Your task to perform on an android device: clear all cookies in the chrome app Image 0: 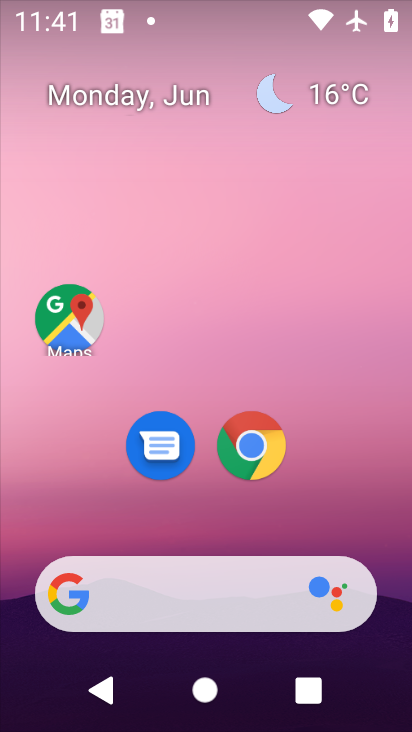
Step 0: click (253, 451)
Your task to perform on an android device: clear all cookies in the chrome app Image 1: 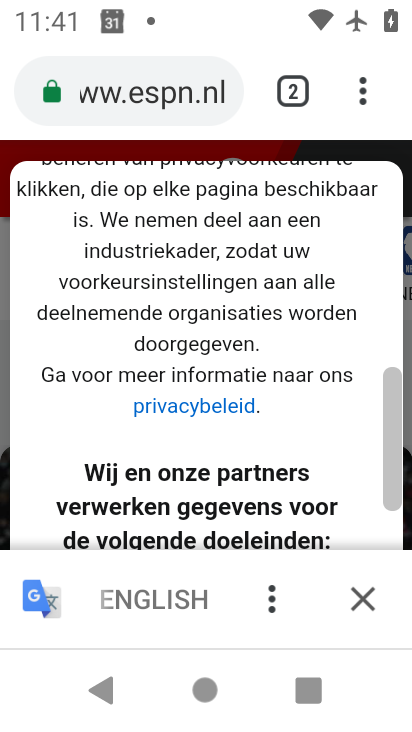
Step 1: drag from (358, 93) to (225, 474)
Your task to perform on an android device: clear all cookies in the chrome app Image 2: 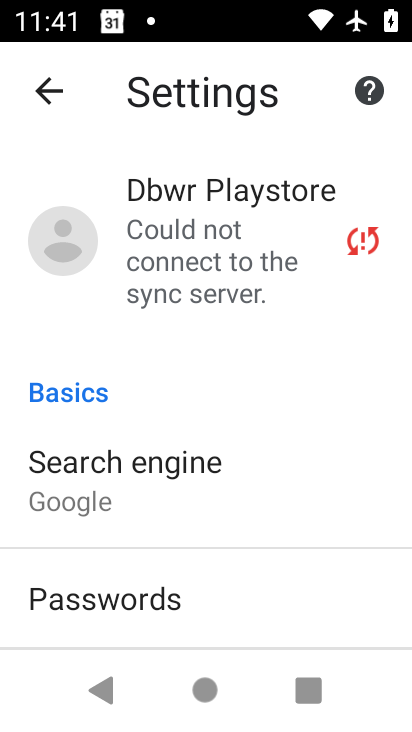
Step 2: drag from (315, 403) to (272, 93)
Your task to perform on an android device: clear all cookies in the chrome app Image 3: 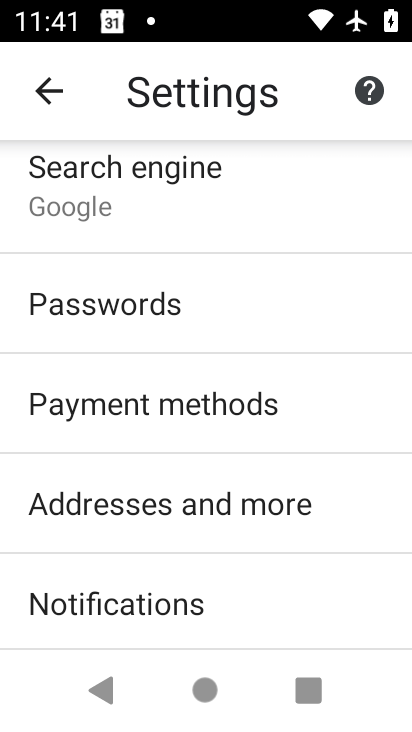
Step 3: drag from (322, 565) to (315, 215)
Your task to perform on an android device: clear all cookies in the chrome app Image 4: 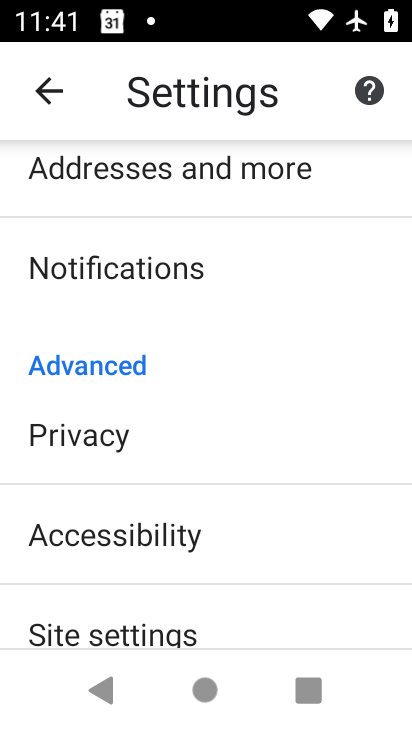
Step 4: click (229, 435)
Your task to perform on an android device: clear all cookies in the chrome app Image 5: 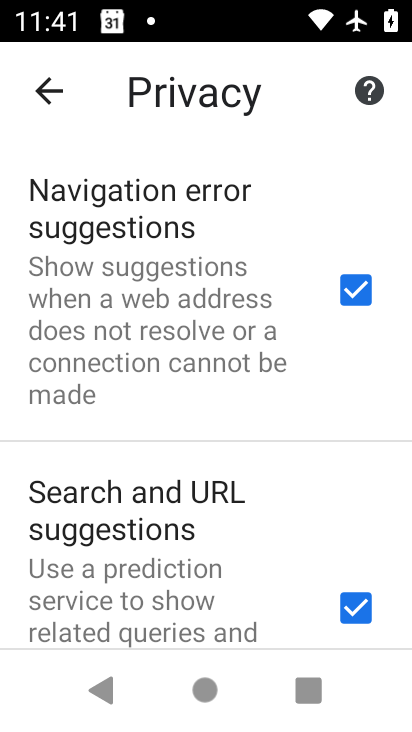
Step 5: drag from (194, 614) to (185, 79)
Your task to perform on an android device: clear all cookies in the chrome app Image 6: 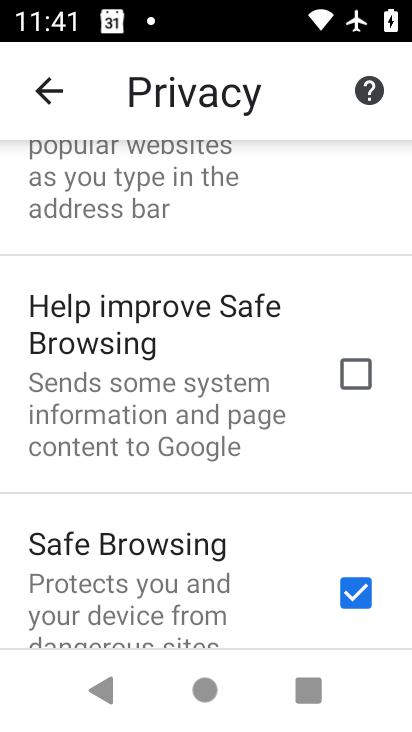
Step 6: drag from (180, 586) to (168, 125)
Your task to perform on an android device: clear all cookies in the chrome app Image 7: 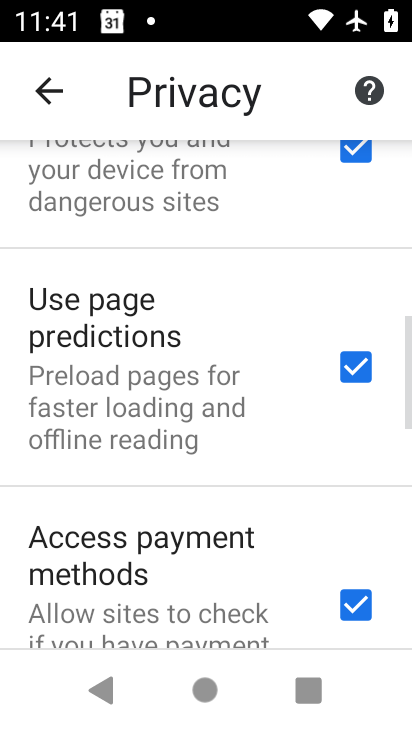
Step 7: drag from (217, 533) to (193, 164)
Your task to perform on an android device: clear all cookies in the chrome app Image 8: 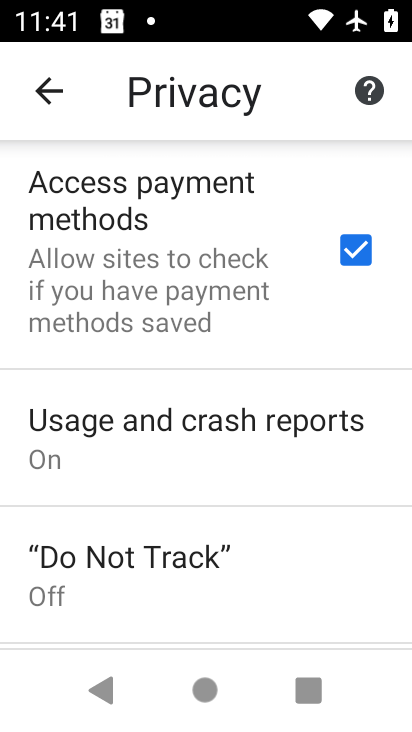
Step 8: drag from (233, 572) to (219, 206)
Your task to perform on an android device: clear all cookies in the chrome app Image 9: 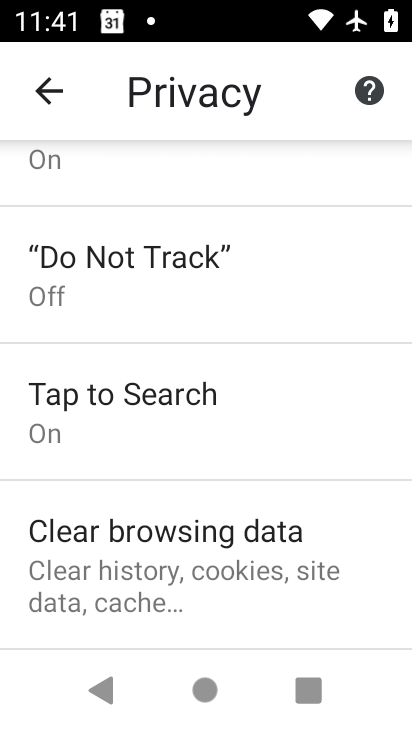
Step 9: click (229, 592)
Your task to perform on an android device: clear all cookies in the chrome app Image 10: 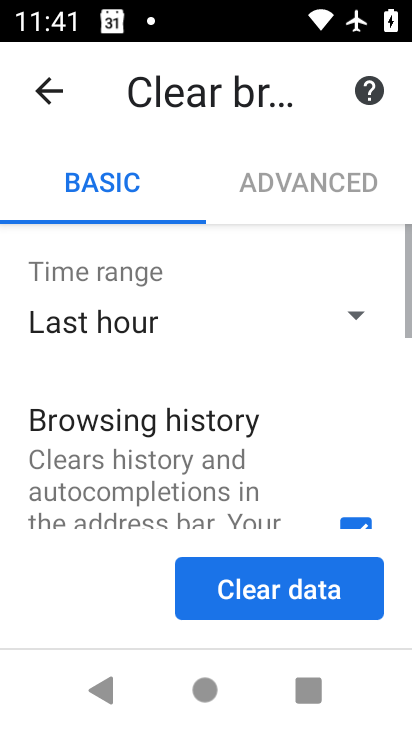
Step 10: drag from (129, 559) to (148, 289)
Your task to perform on an android device: clear all cookies in the chrome app Image 11: 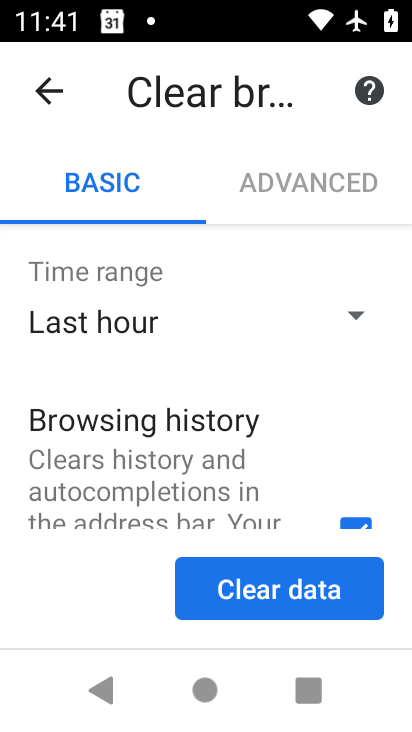
Step 11: drag from (228, 454) to (226, 154)
Your task to perform on an android device: clear all cookies in the chrome app Image 12: 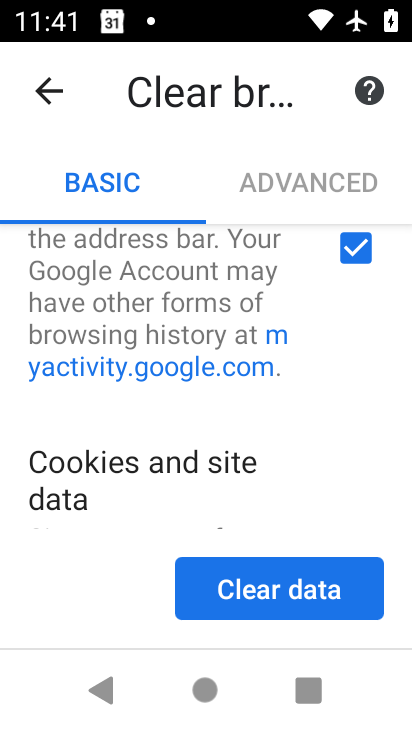
Step 12: click (349, 239)
Your task to perform on an android device: clear all cookies in the chrome app Image 13: 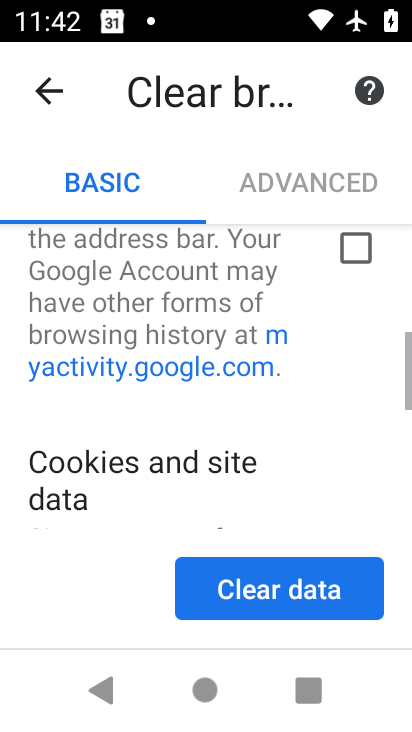
Step 13: drag from (79, 514) to (103, 231)
Your task to perform on an android device: clear all cookies in the chrome app Image 14: 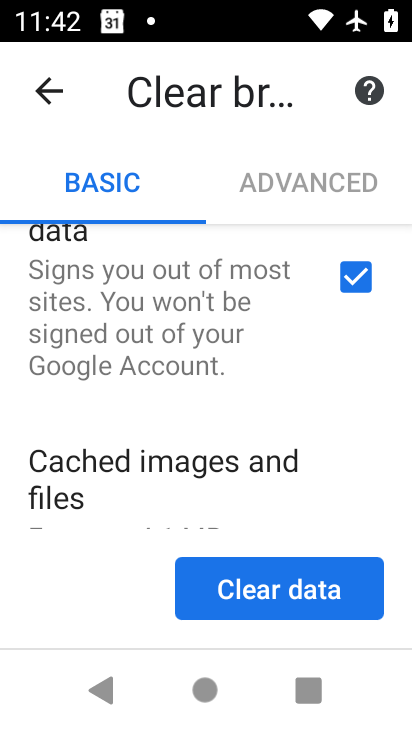
Step 14: drag from (138, 490) to (135, 307)
Your task to perform on an android device: clear all cookies in the chrome app Image 15: 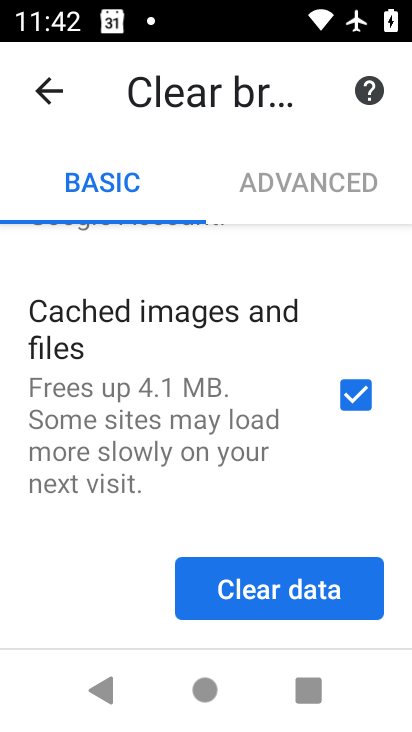
Step 15: click (340, 397)
Your task to perform on an android device: clear all cookies in the chrome app Image 16: 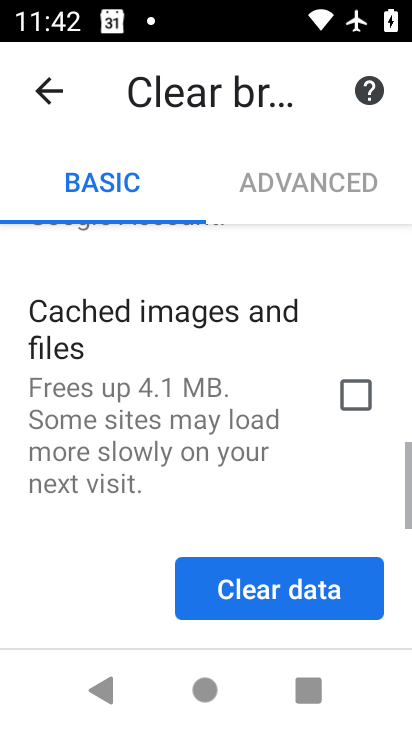
Step 16: drag from (134, 521) to (160, 176)
Your task to perform on an android device: clear all cookies in the chrome app Image 17: 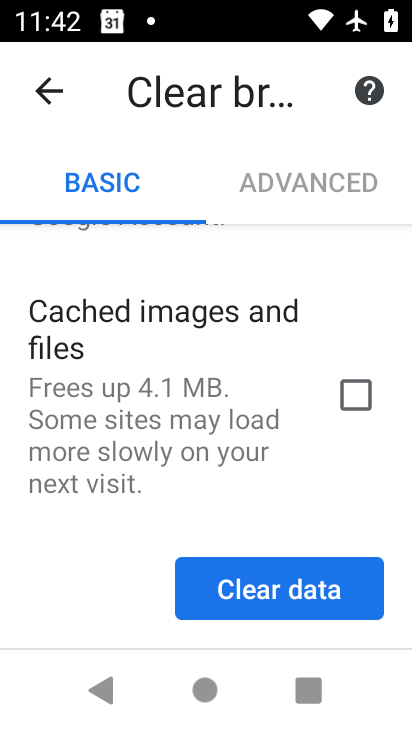
Step 17: click (267, 589)
Your task to perform on an android device: clear all cookies in the chrome app Image 18: 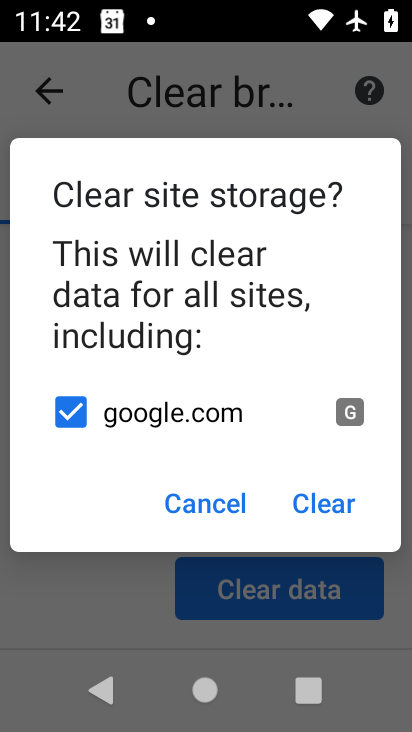
Step 18: click (324, 503)
Your task to perform on an android device: clear all cookies in the chrome app Image 19: 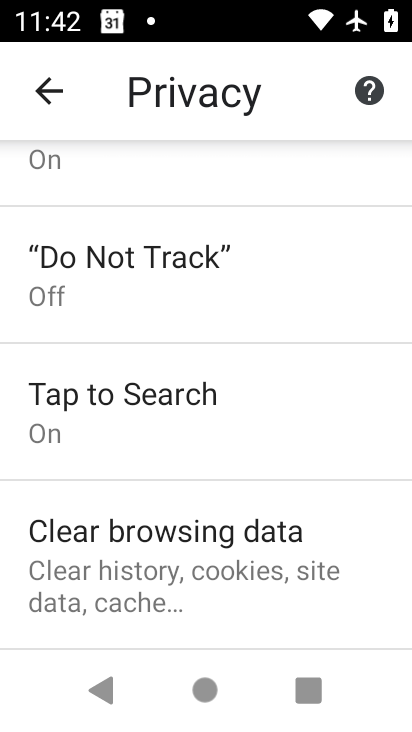
Step 19: press home button
Your task to perform on an android device: clear all cookies in the chrome app Image 20: 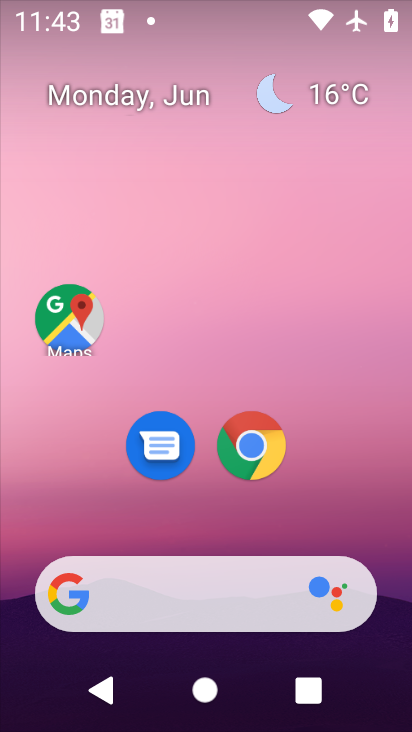
Step 20: click (249, 433)
Your task to perform on an android device: clear all cookies in the chrome app Image 21: 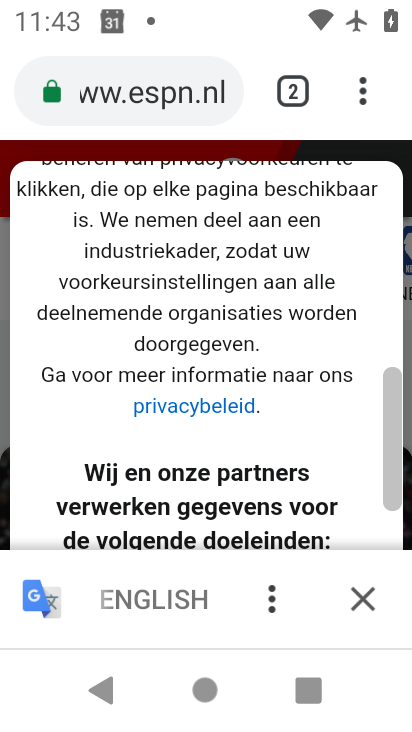
Step 21: drag from (365, 90) to (253, 460)
Your task to perform on an android device: clear all cookies in the chrome app Image 22: 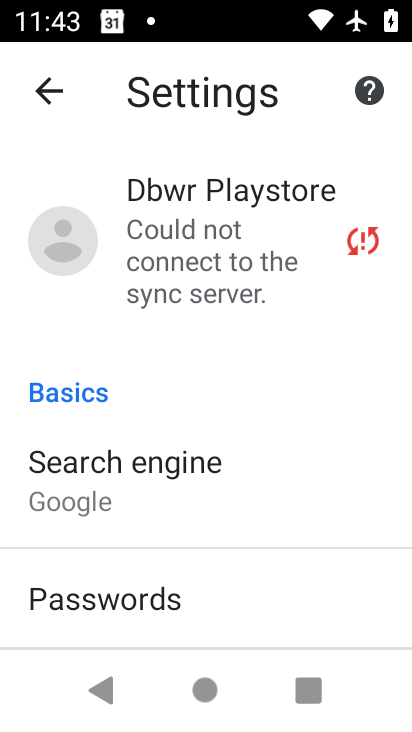
Step 22: drag from (296, 517) to (321, 6)
Your task to perform on an android device: clear all cookies in the chrome app Image 23: 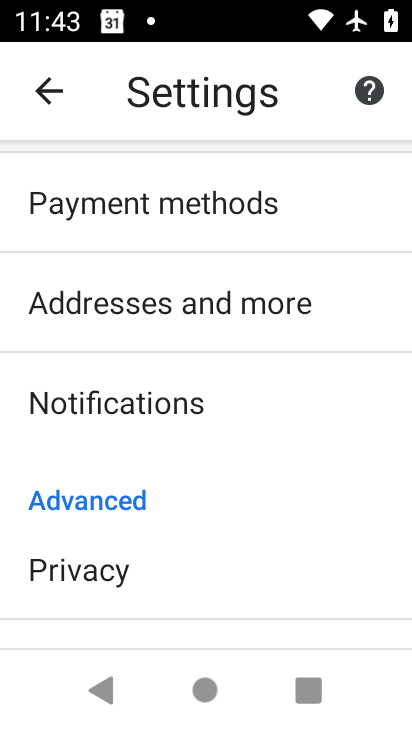
Step 23: click (232, 566)
Your task to perform on an android device: clear all cookies in the chrome app Image 24: 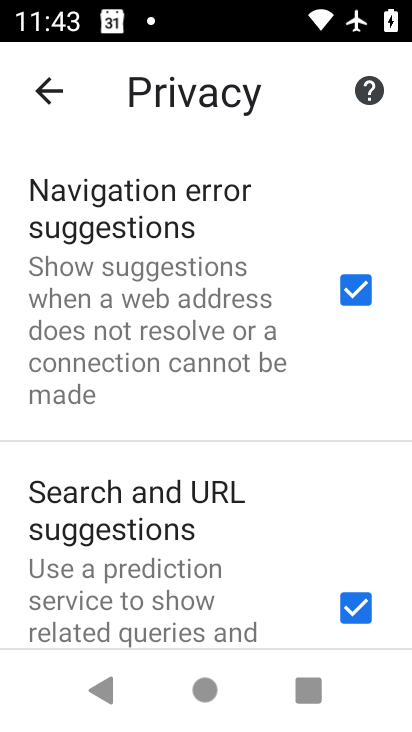
Step 24: drag from (156, 620) to (224, 43)
Your task to perform on an android device: clear all cookies in the chrome app Image 25: 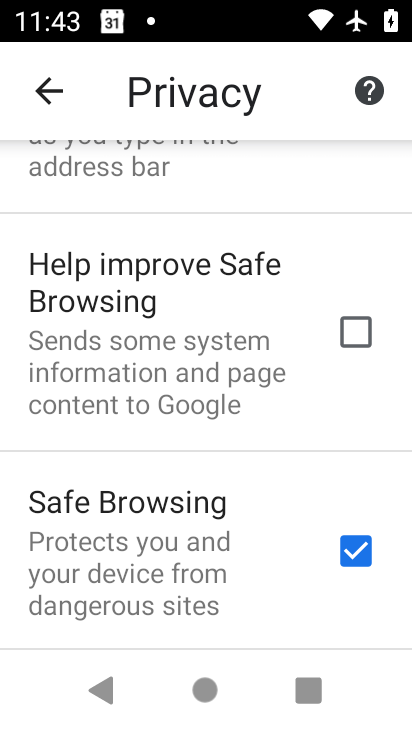
Step 25: drag from (150, 593) to (198, 2)
Your task to perform on an android device: clear all cookies in the chrome app Image 26: 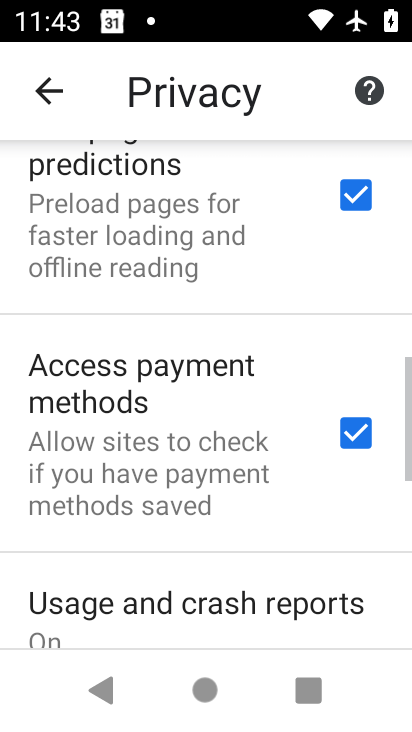
Step 26: drag from (178, 615) to (253, 11)
Your task to perform on an android device: clear all cookies in the chrome app Image 27: 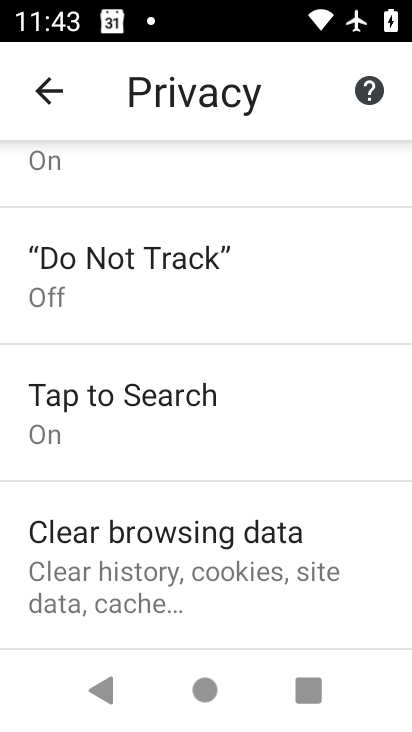
Step 27: click (122, 560)
Your task to perform on an android device: clear all cookies in the chrome app Image 28: 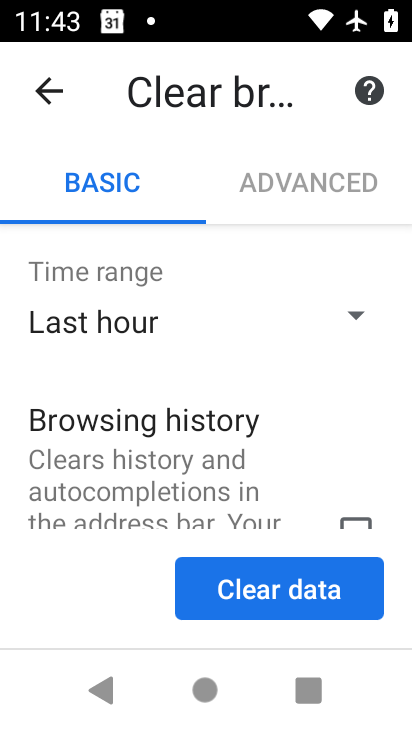
Step 28: drag from (112, 498) to (151, 81)
Your task to perform on an android device: clear all cookies in the chrome app Image 29: 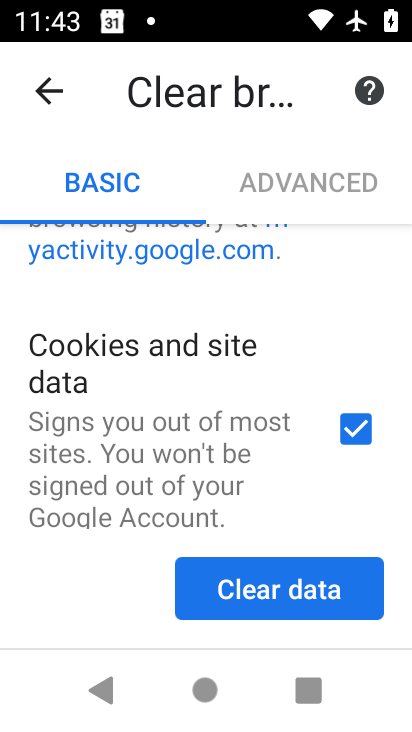
Step 29: drag from (109, 537) to (130, 8)
Your task to perform on an android device: clear all cookies in the chrome app Image 30: 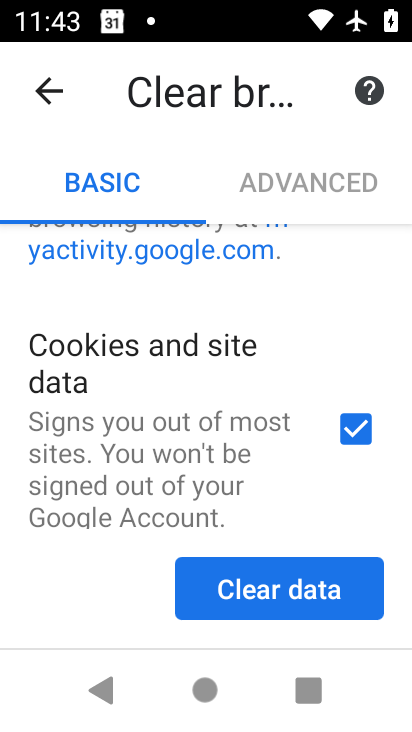
Step 30: drag from (162, 487) to (174, 128)
Your task to perform on an android device: clear all cookies in the chrome app Image 31: 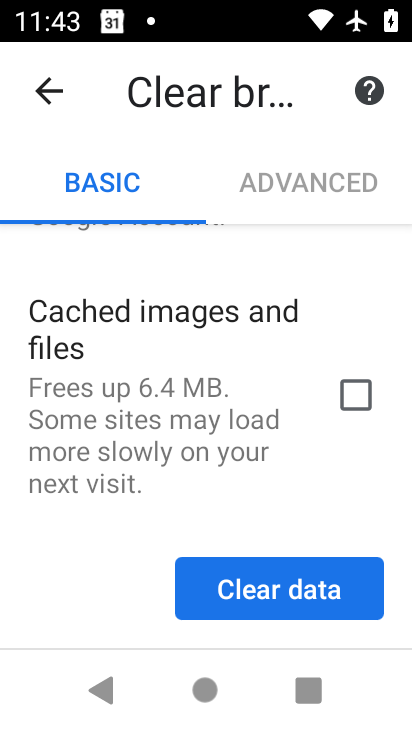
Step 31: drag from (138, 515) to (180, 19)
Your task to perform on an android device: clear all cookies in the chrome app Image 32: 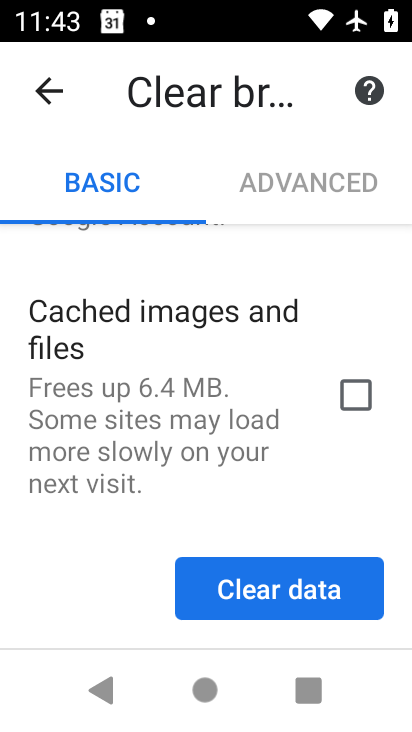
Step 32: drag from (88, 536) to (151, 103)
Your task to perform on an android device: clear all cookies in the chrome app Image 33: 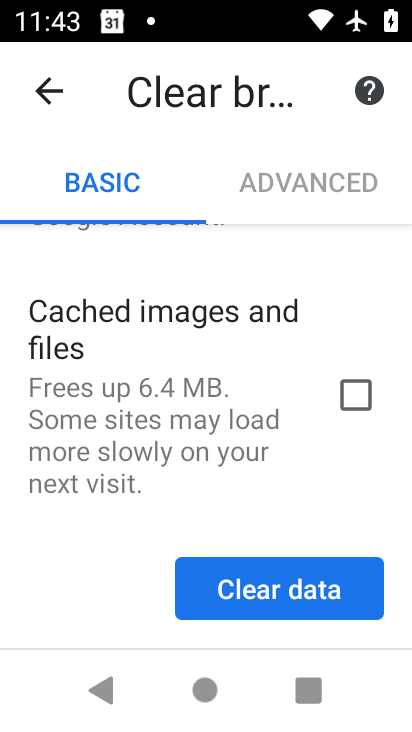
Step 33: drag from (144, 271) to (169, 225)
Your task to perform on an android device: clear all cookies in the chrome app Image 34: 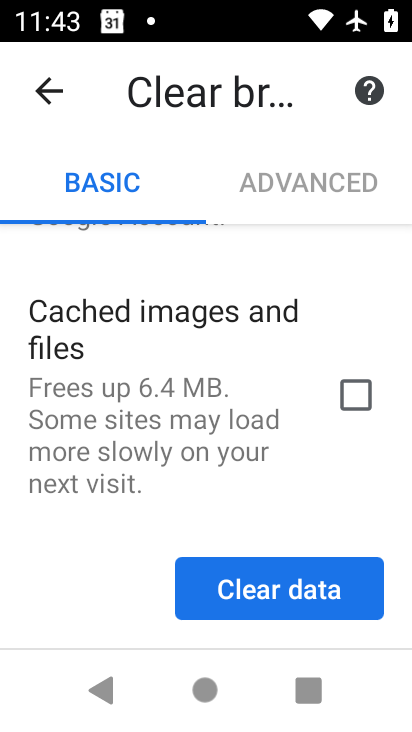
Step 34: click (271, 579)
Your task to perform on an android device: clear all cookies in the chrome app Image 35: 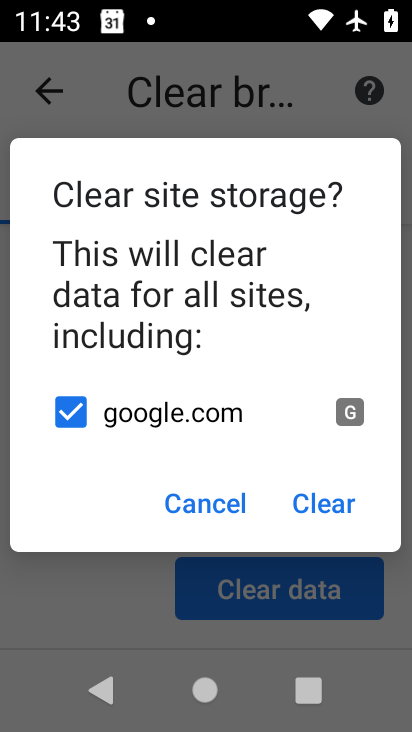
Step 35: click (345, 511)
Your task to perform on an android device: clear all cookies in the chrome app Image 36: 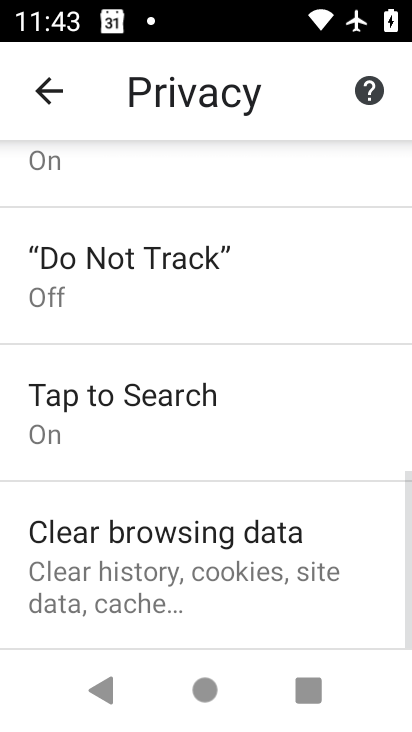
Step 36: task complete